Your task to perform on an android device: Open Chrome and go to the settings page Image 0: 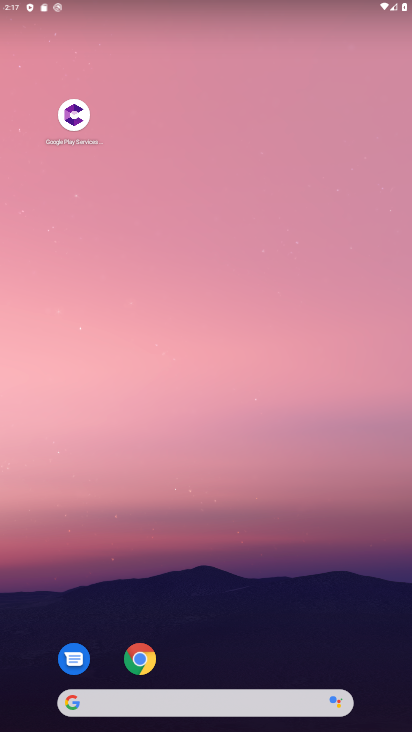
Step 0: drag from (304, 698) to (390, 155)
Your task to perform on an android device: Open Chrome and go to the settings page Image 1: 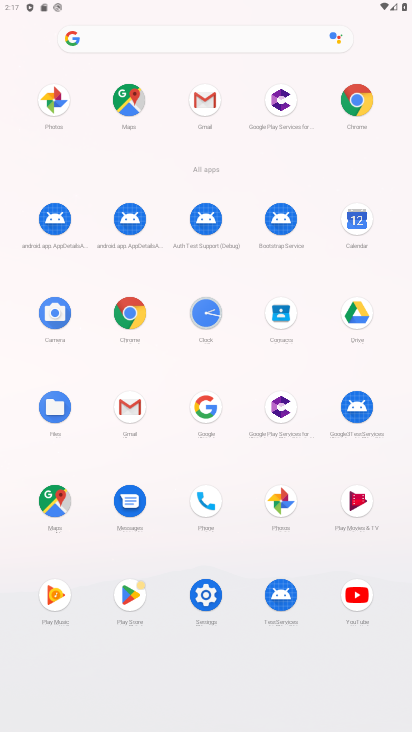
Step 1: click (365, 103)
Your task to perform on an android device: Open Chrome and go to the settings page Image 2: 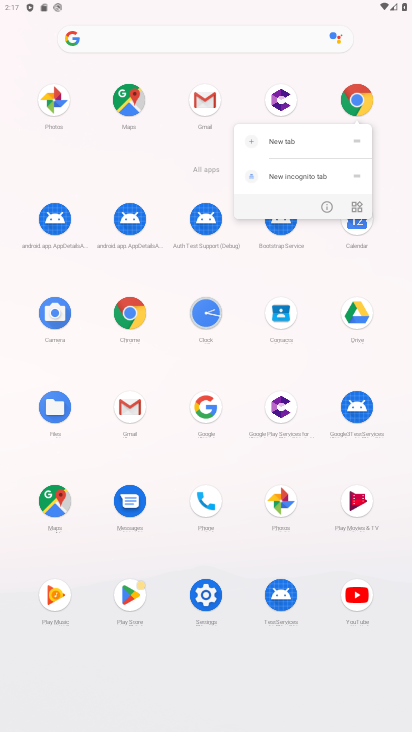
Step 2: click (365, 103)
Your task to perform on an android device: Open Chrome and go to the settings page Image 3: 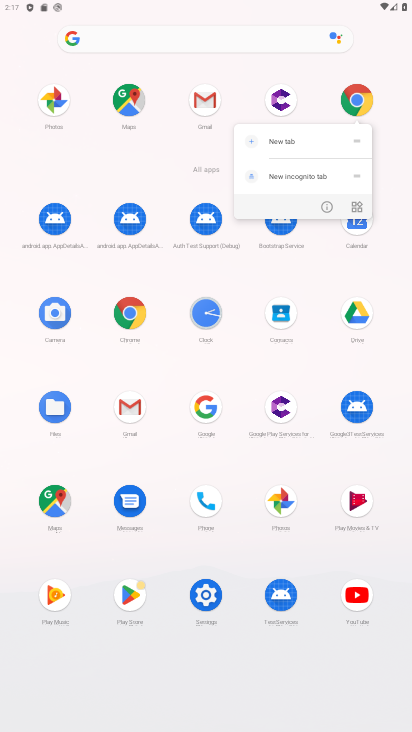
Step 3: click (359, 99)
Your task to perform on an android device: Open Chrome and go to the settings page Image 4: 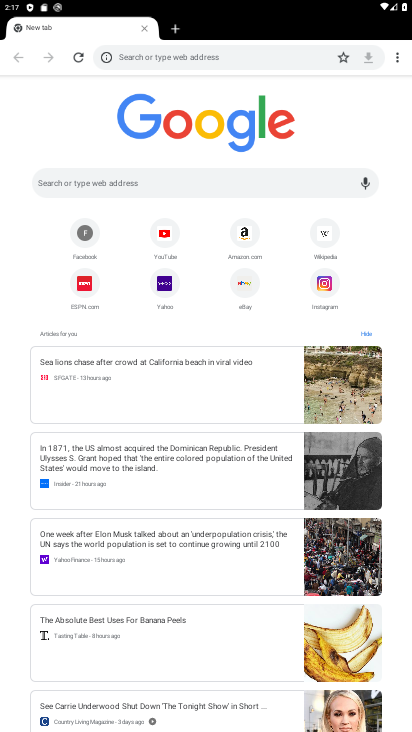
Step 4: click (395, 52)
Your task to perform on an android device: Open Chrome and go to the settings page Image 5: 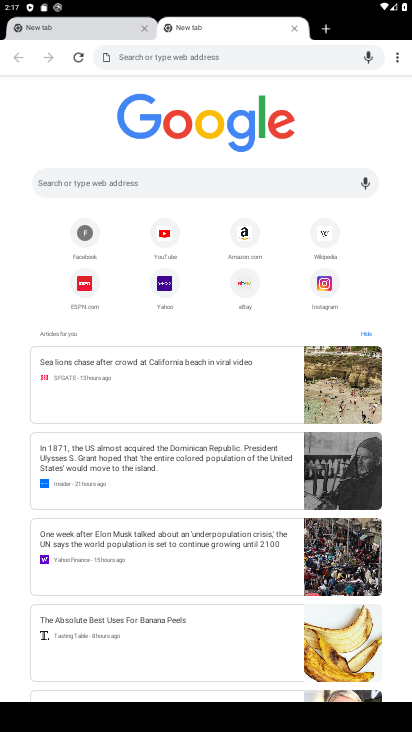
Step 5: click (400, 53)
Your task to perform on an android device: Open Chrome and go to the settings page Image 6: 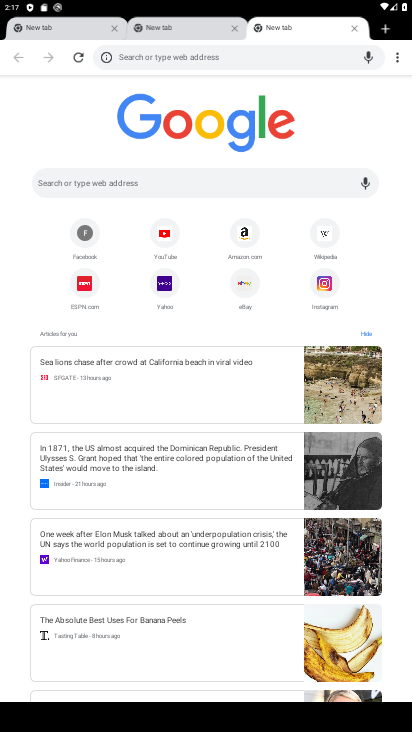
Step 6: click (395, 56)
Your task to perform on an android device: Open Chrome and go to the settings page Image 7: 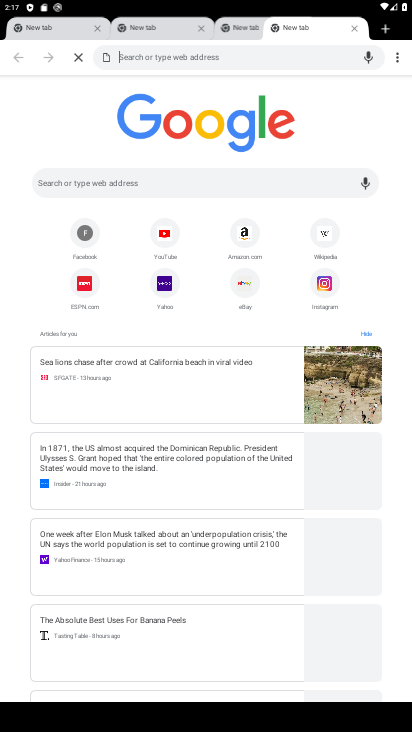
Step 7: click (395, 56)
Your task to perform on an android device: Open Chrome and go to the settings page Image 8: 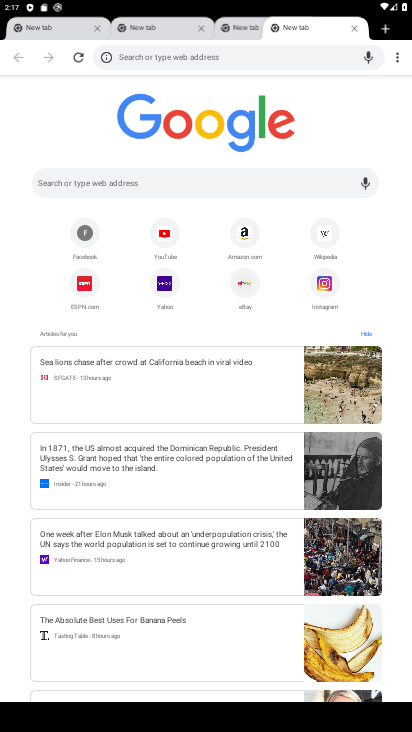
Step 8: click (394, 57)
Your task to perform on an android device: Open Chrome and go to the settings page Image 9: 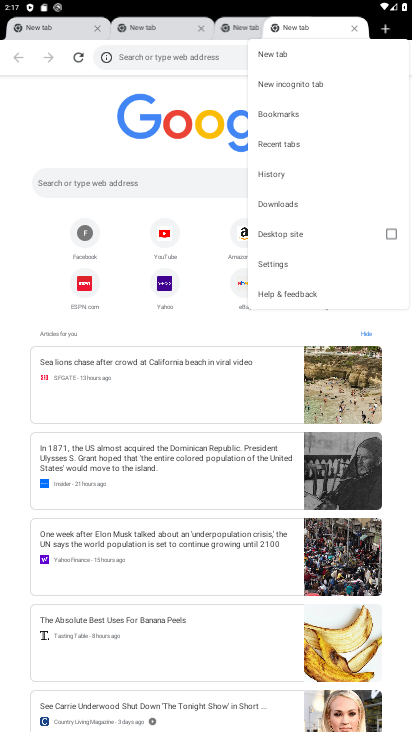
Step 9: click (272, 261)
Your task to perform on an android device: Open Chrome and go to the settings page Image 10: 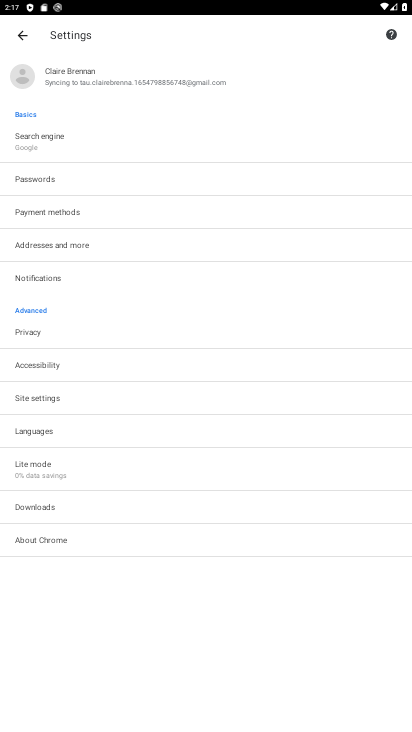
Step 10: task complete